Your task to perform on an android device: Search for "dell xps" on bestbuy, select the first entry, and add it to the cart. Image 0: 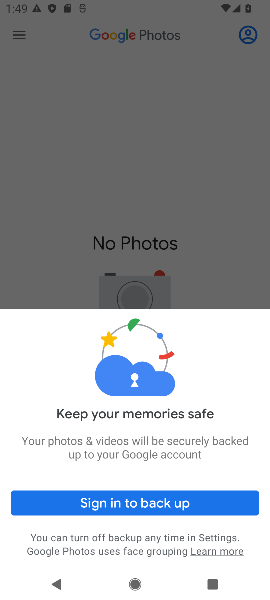
Step 0: press home button
Your task to perform on an android device: Search for "dell xps" on bestbuy, select the first entry, and add it to the cart. Image 1: 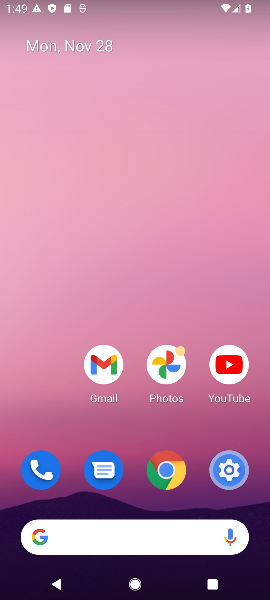
Step 1: click (119, 535)
Your task to perform on an android device: Search for "dell xps" on bestbuy, select the first entry, and add it to the cart. Image 2: 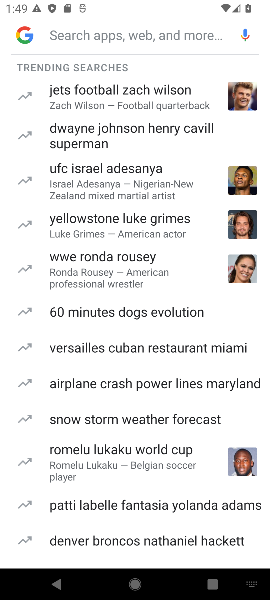
Step 2: type "dell xps"
Your task to perform on an android device: Search for "dell xps" on bestbuy, select the first entry, and add it to the cart. Image 3: 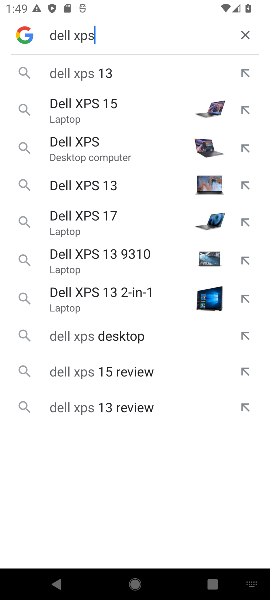
Step 3: click (78, 75)
Your task to perform on an android device: Search for "dell xps" on bestbuy, select the first entry, and add it to the cart. Image 4: 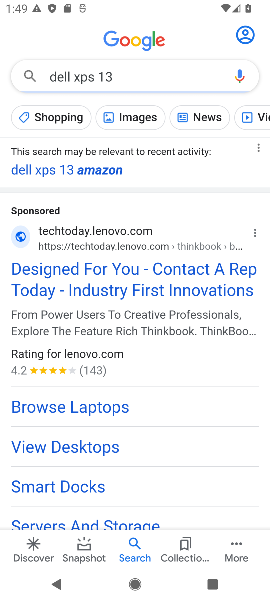
Step 4: click (58, 272)
Your task to perform on an android device: Search for "dell xps" on bestbuy, select the first entry, and add it to the cart. Image 5: 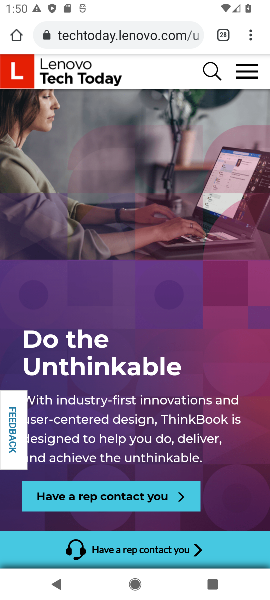
Step 5: press home button
Your task to perform on an android device: Search for "dell xps" on bestbuy, select the first entry, and add it to the cart. Image 6: 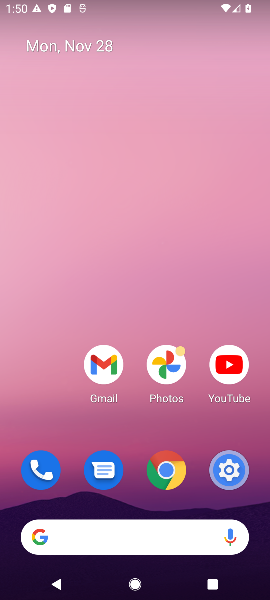
Step 6: click (113, 549)
Your task to perform on an android device: Search for "dell xps" on bestbuy, select the first entry, and add it to the cart. Image 7: 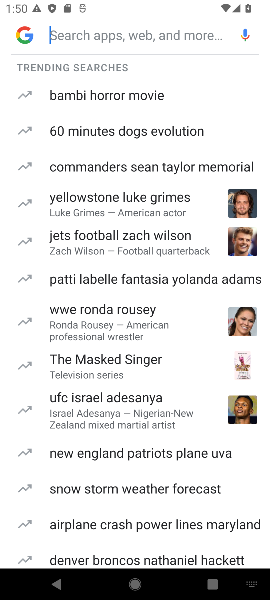
Step 7: type "bestbuy"
Your task to perform on an android device: Search for "dell xps" on bestbuy, select the first entry, and add it to the cart. Image 8: 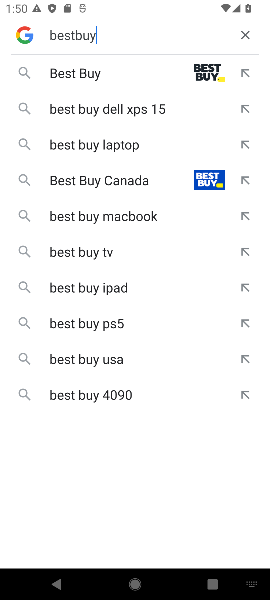
Step 8: click (72, 89)
Your task to perform on an android device: Search for "dell xps" on bestbuy, select the first entry, and add it to the cart. Image 9: 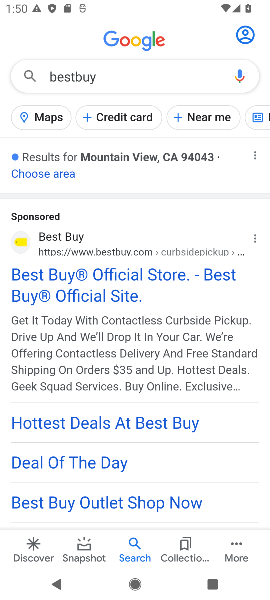
Step 9: click (48, 264)
Your task to perform on an android device: Search for "dell xps" on bestbuy, select the first entry, and add it to the cart. Image 10: 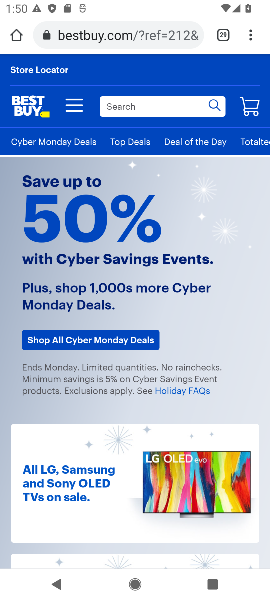
Step 10: click (120, 105)
Your task to perform on an android device: Search for "dell xps" on bestbuy, select the first entry, and add it to the cart. Image 11: 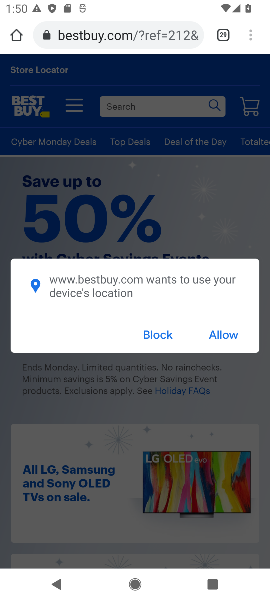
Step 11: click (202, 327)
Your task to perform on an android device: Search for "dell xps" on bestbuy, select the first entry, and add it to the cart. Image 12: 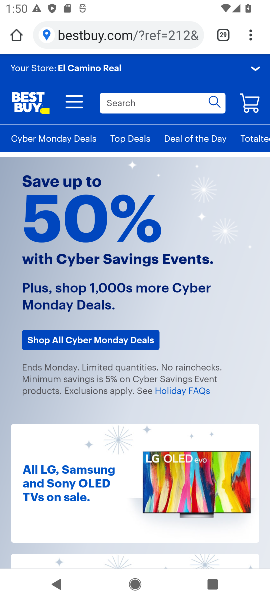
Step 12: click (145, 111)
Your task to perform on an android device: Search for "dell xps" on bestbuy, select the first entry, and add it to the cart. Image 13: 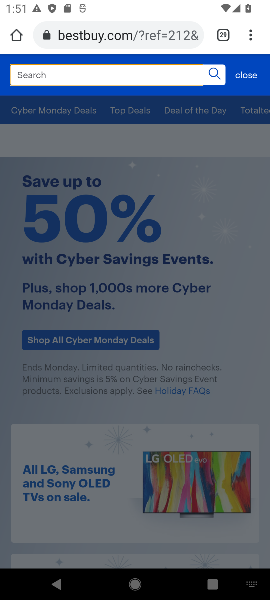
Step 13: type "dell xps"
Your task to perform on an android device: Search for "dell xps" on bestbuy, select the first entry, and add it to the cart. Image 14: 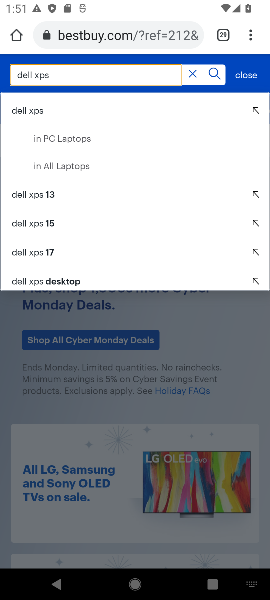
Step 14: click (19, 112)
Your task to perform on an android device: Search for "dell xps" on bestbuy, select the first entry, and add it to the cart. Image 15: 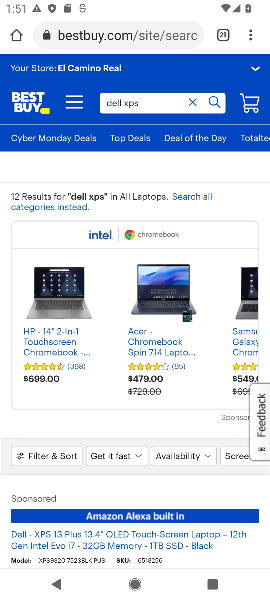
Step 15: task complete